Your task to perform on an android device: delete a single message in the gmail app Image 0: 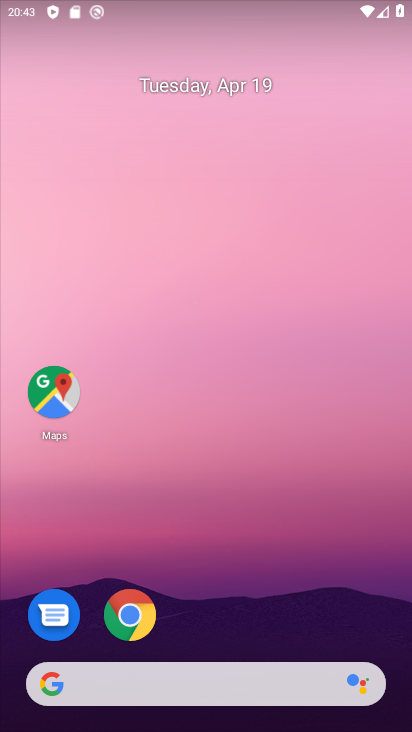
Step 0: drag from (249, 649) to (333, 277)
Your task to perform on an android device: delete a single message in the gmail app Image 1: 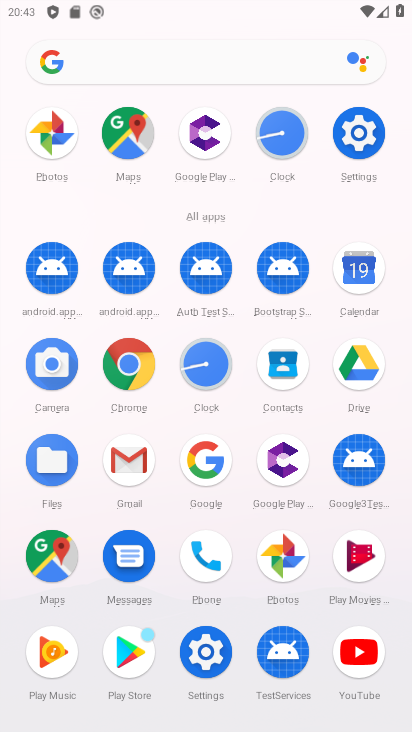
Step 1: click (137, 456)
Your task to perform on an android device: delete a single message in the gmail app Image 2: 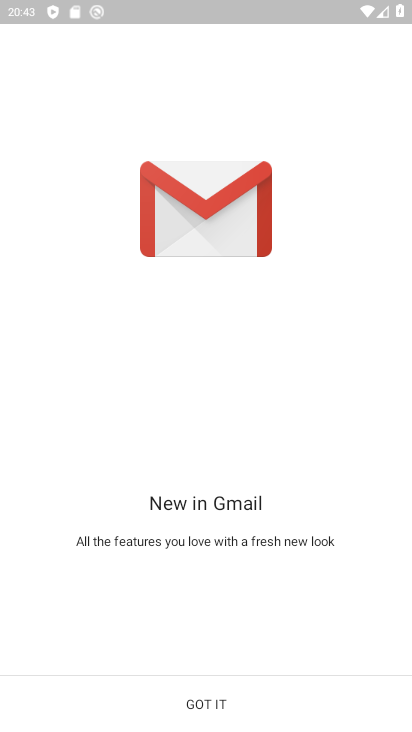
Step 2: click (206, 711)
Your task to perform on an android device: delete a single message in the gmail app Image 3: 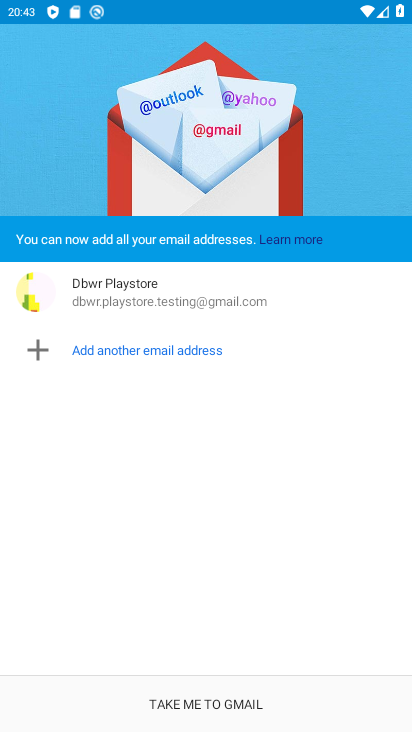
Step 3: click (206, 704)
Your task to perform on an android device: delete a single message in the gmail app Image 4: 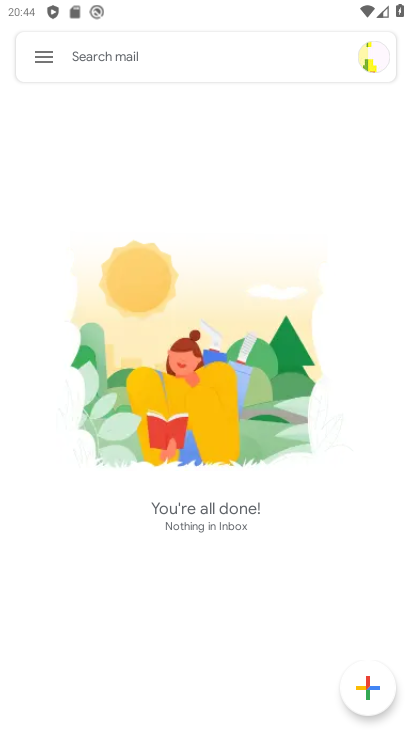
Step 4: click (43, 56)
Your task to perform on an android device: delete a single message in the gmail app Image 5: 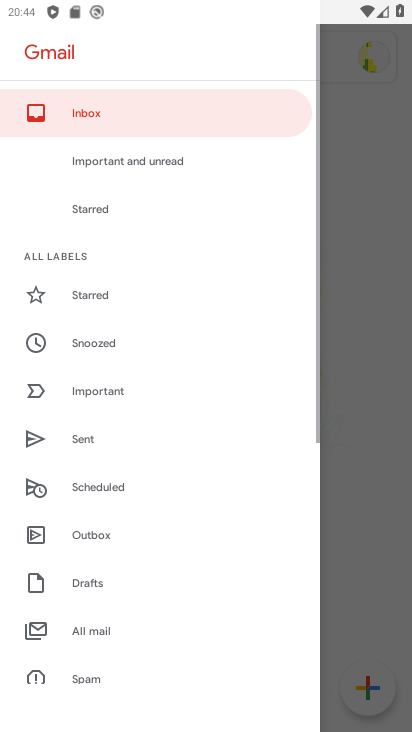
Step 5: click (30, 58)
Your task to perform on an android device: delete a single message in the gmail app Image 6: 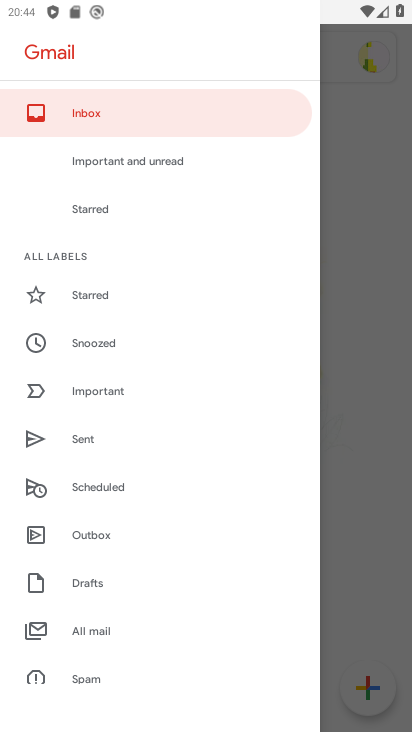
Step 6: click (76, 625)
Your task to perform on an android device: delete a single message in the gmail app Image 7: 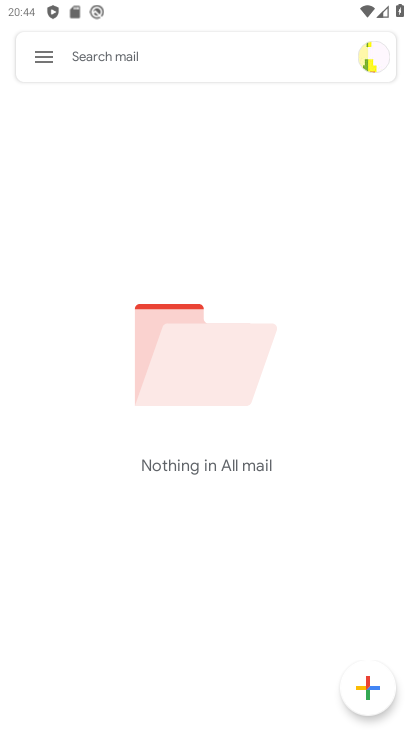
Step 7: task complete